Your task to perform on an android device: Open Reddit.com Image 0: 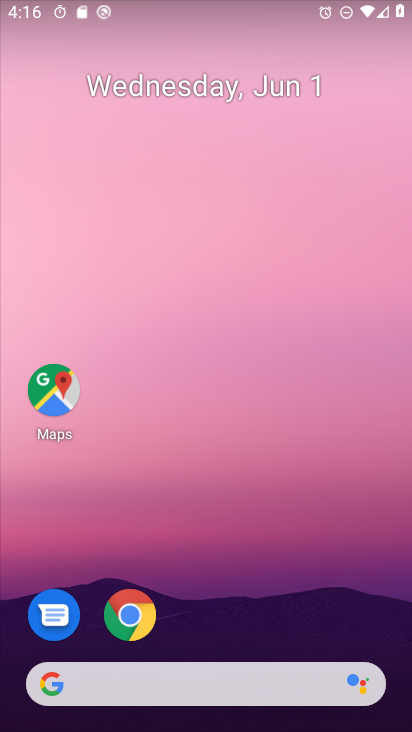
Step 0: drag from (237, 649) to (350, 3)
Your task to perform on an android device: Open Reddit.com Image 1: 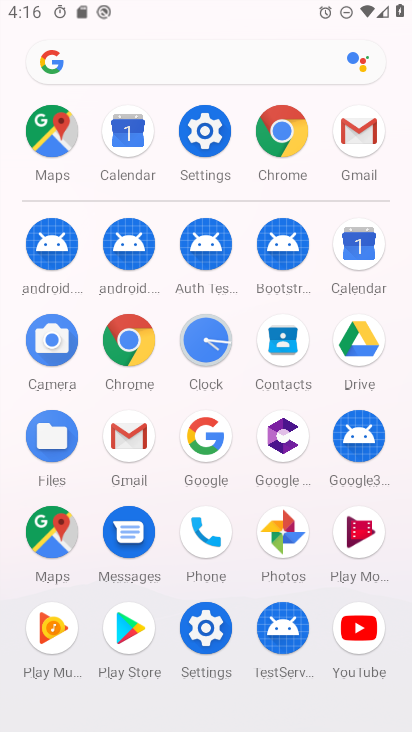
Step 1: click (124, 356)
Your task to perform on an android device: Open Reddit.com Image 2: 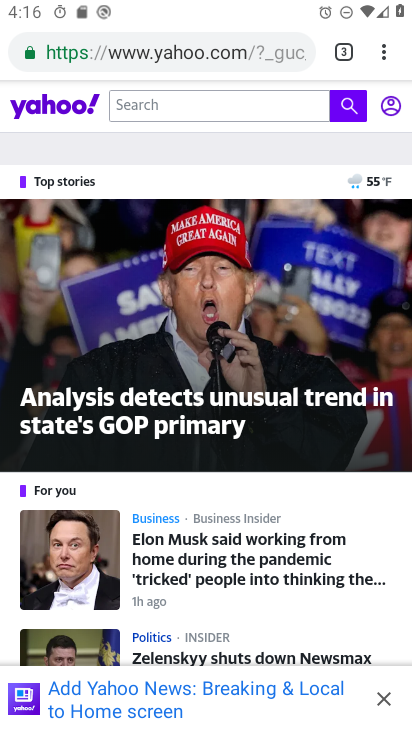
Step 2: click (266, 61)
Your task to perform on an android device: Open Reddit.com Image 3: 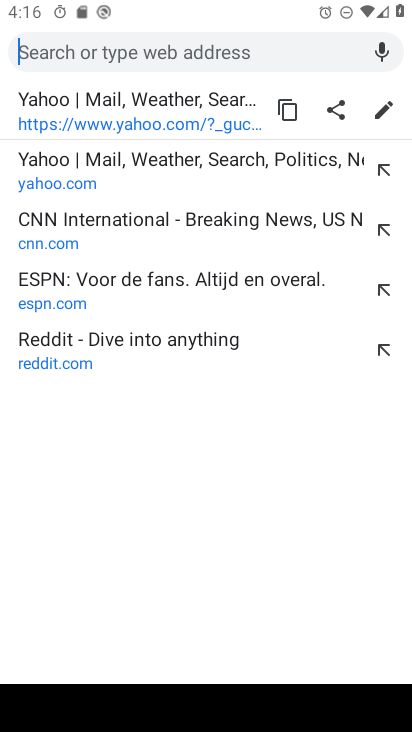
Step 3: click (73, 350)
Your task to perform on an android device: Open Reddit.com Image 4: 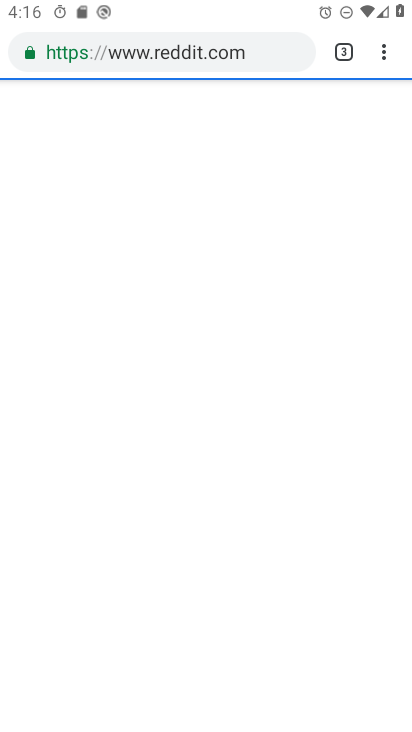
Step 4: task complete